Your task to perform on an android device: open app "Microsoft Authenticator" (install if not already installed), go to login, and select forgot password Image 0: 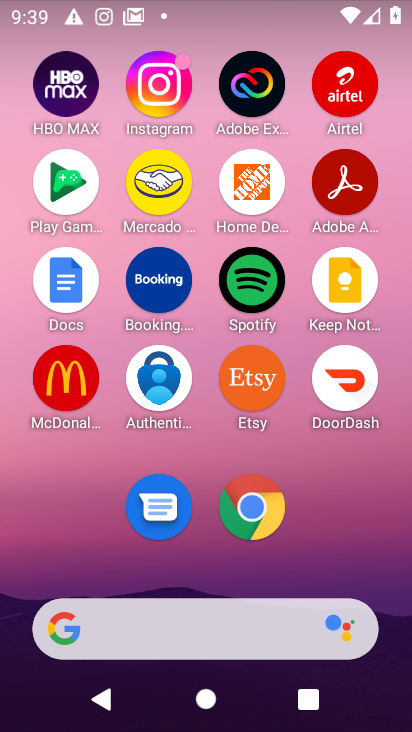
Step 0: drag from (186, 511) to (158, 150)
Your task to perform on an android device: open app "Microsoft Authenticator" (install if not already installed), go to login, and select forgot password Image 1: 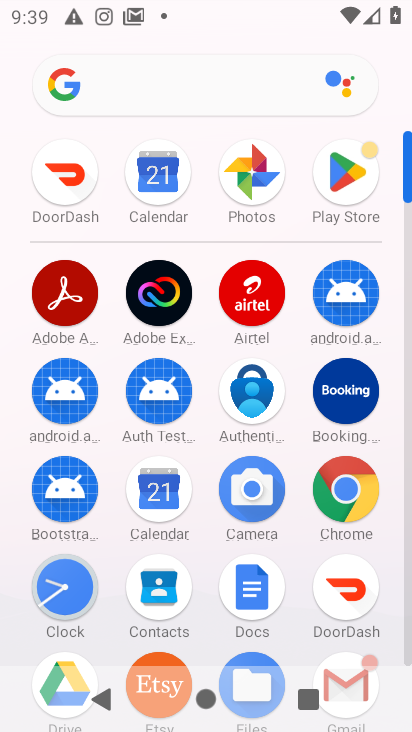
Step 1: click (352, 165)
Your task to perform on an android device: open app "Microsoft Authenticator" (install if not already installed), go to login, and select forgot password Image 2: 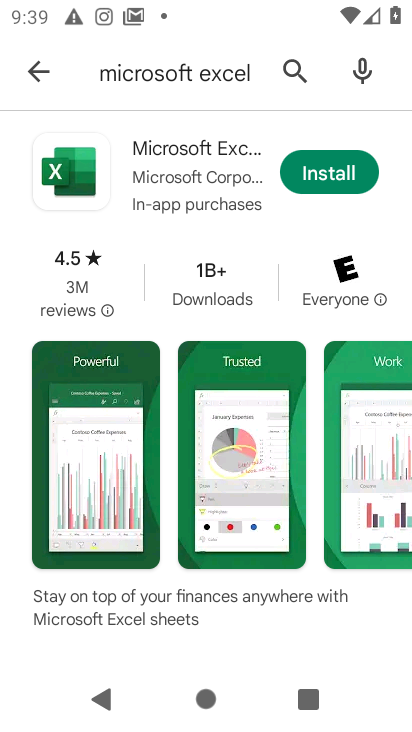
Step 2: click (40, 72)
Your task to perform on an android device: open app "Microsoft Authenticator" (install if not already installed), go to login, and select forgot password Image 3: 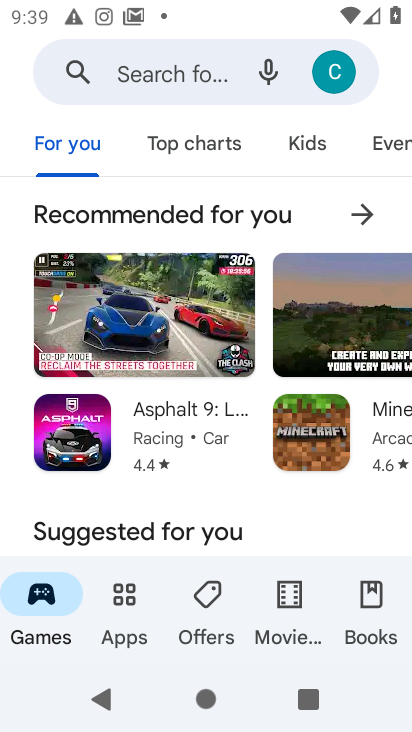
Step 3: click (154, 76)
Your task to perform on an android device: open app "Microsoft Authenticator" (install if not already installed), go to login, and select forgot password Image 4: 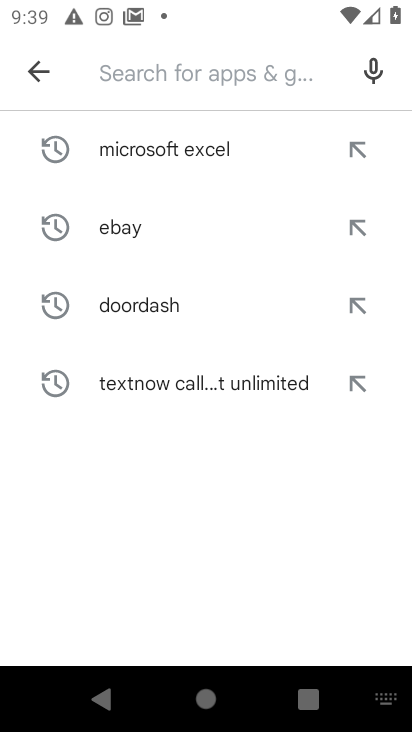
Step 4: type "Microsoft Authenticator"
Your task to perform on an android device: open app "Microsoft Authenticator" (install if not already installed), go to login, and select forgot password Image 5: 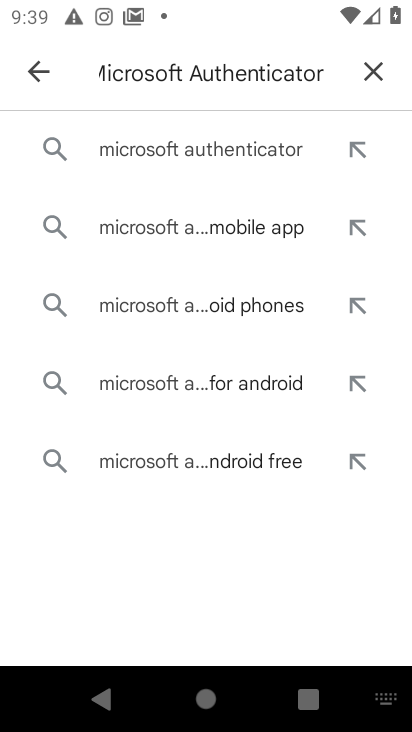
Step 5: click (177, 160)
Your task to perform on an android device: open app "Microsoft Authenticator" (install if not already installed), go to login, and select forgot password Image 6: 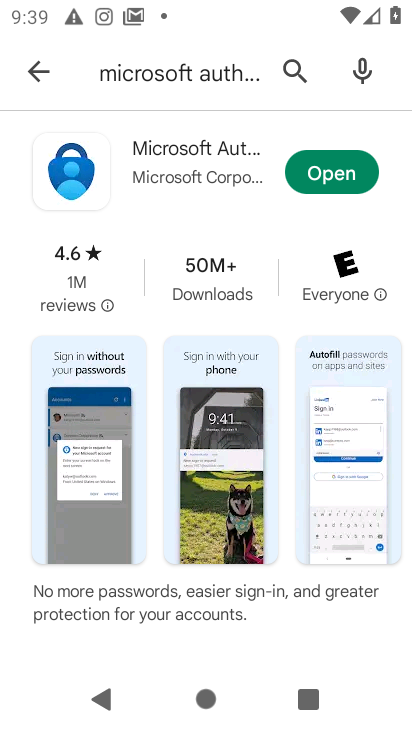
Step 6: click (327, 174)
Your task to perform on an android device: open app "Microsoft Authenticator" (install if not already installed), go to login, and select forgot password Image 7: 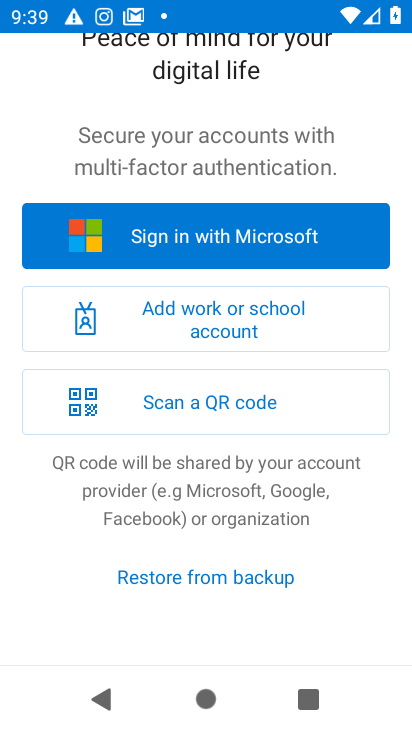
Step 7: task complete